Your task to perform on an android device: Search for Italian restaurants on Maps Image 0: 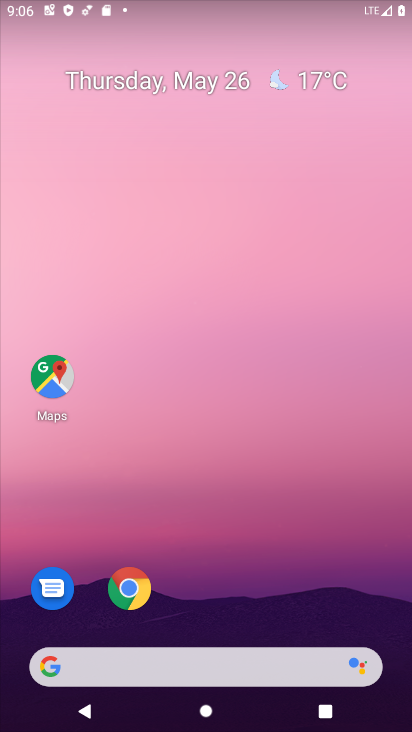
Step 0: click (50, 379)
Your task to perform on an android device: Search for Italian restaurants on Maps Image 1: 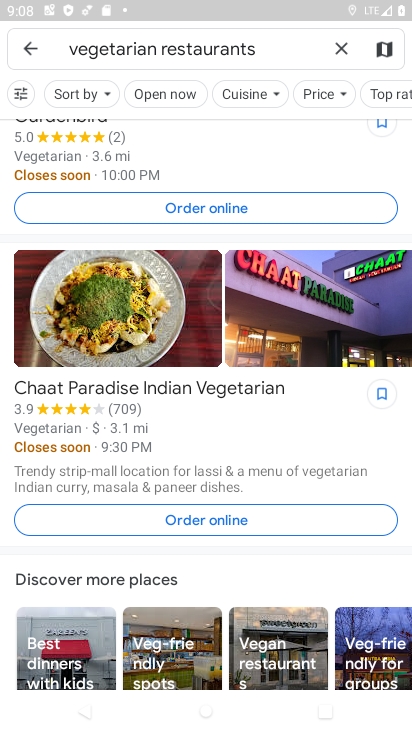
Step 1: click (342, 47)
Your task to perform on an android device: Search for Italian restaurants on Maps Image 2: 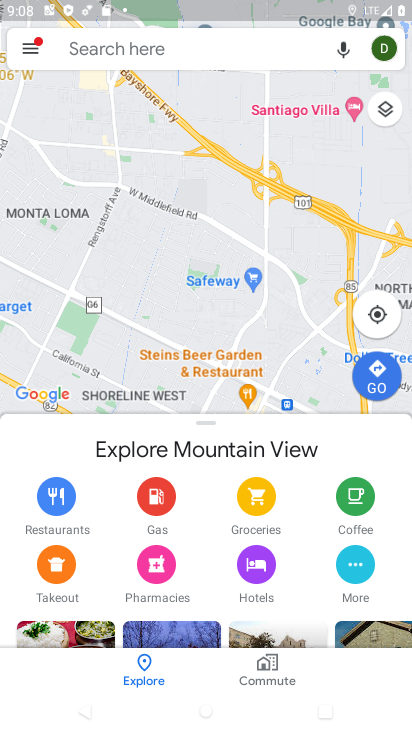
Step 2: click (165, 47)
Your task to perform on an android device: Search for Italian restaurants on Maps Image 3: 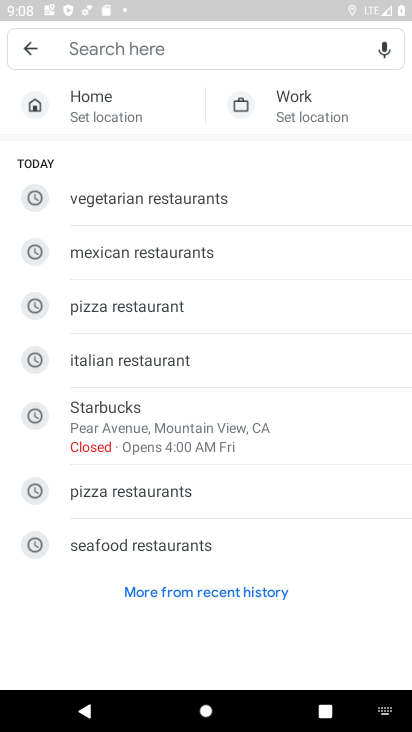
Step 3: type "italian restaurants"
Your task to perform on an android device: Search for Italian restaurants on Maps Image 4: 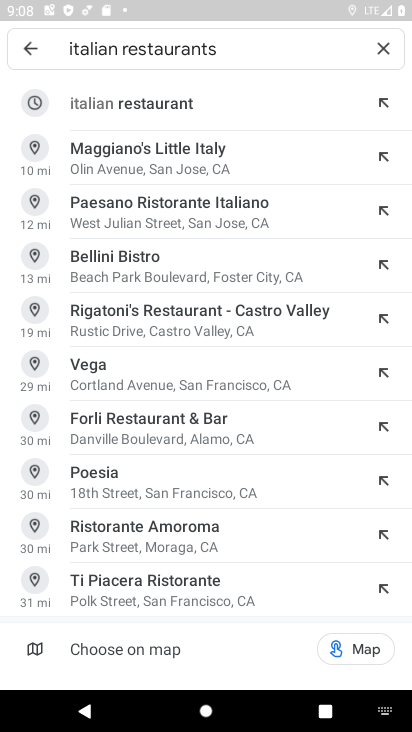
Step 4: click (145, 110)
Your task to perform on an android device: Search for Italian restaurants on Maps Image 5: 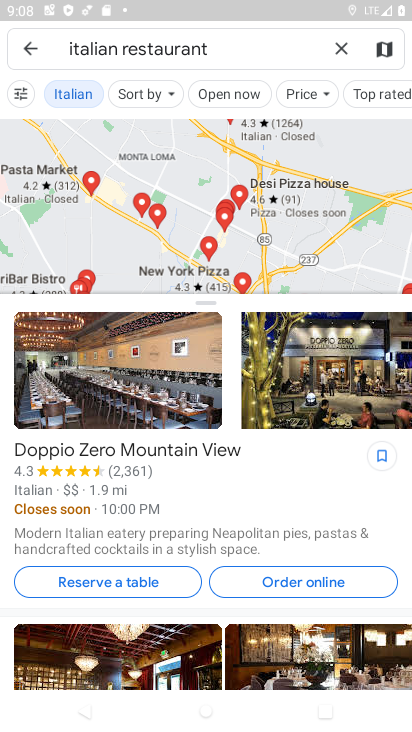
Step 5: task complete